Your task to perform on an android device: change notification settings in the gmail app Image 0: 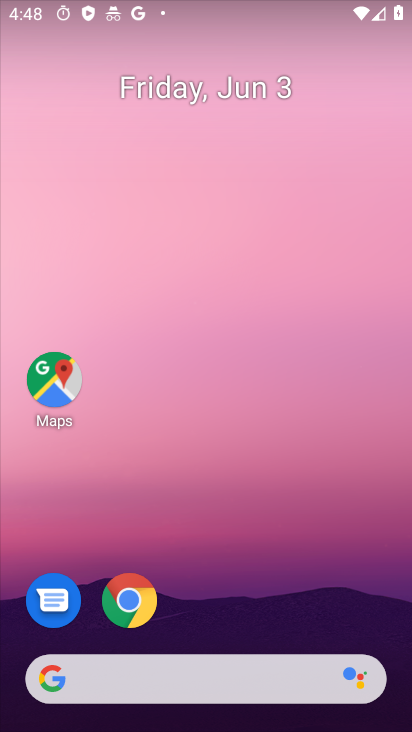
Step 0: drag from (391, 590) to (282, 60)
Your task to perform on an android device: change notification settings in the gmail app Image 1: 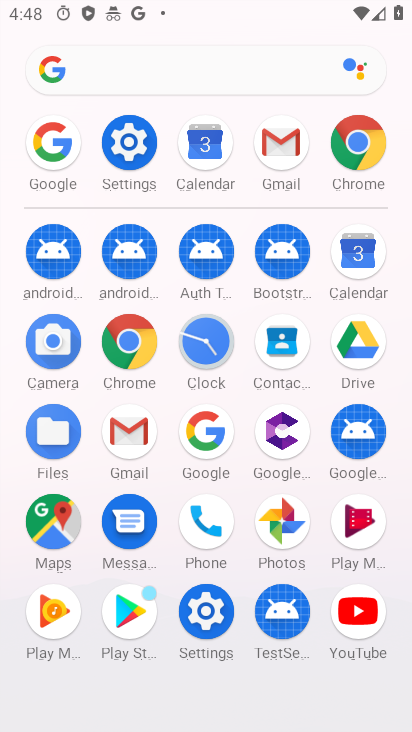
Step 1: click (125, 428)
Your task to perform on an android device: change notification settings in the gmail app Image 2: 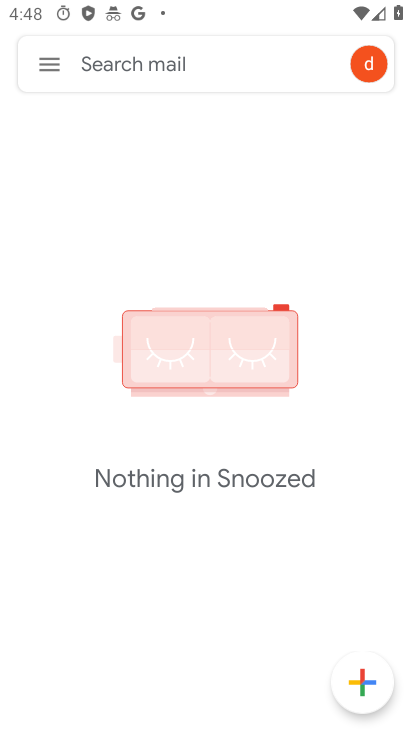
Step 2: click (37, 62)
Your task to perform on an android device: change notification settings in the gmail app Image 3: 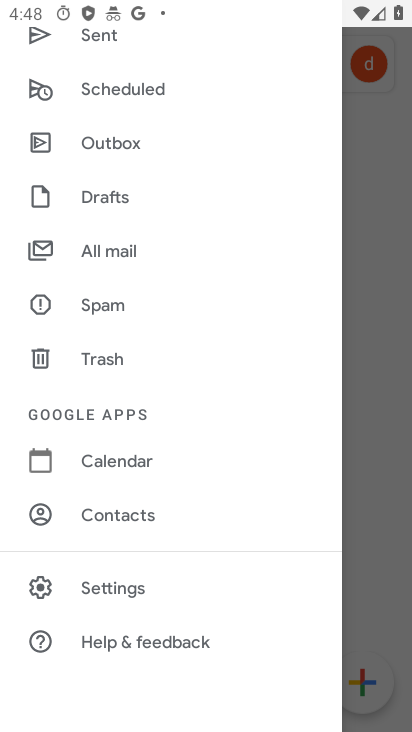
Step 3: click (116, 584)
Your task to perform on an android device: change notification settings in the gmail app Image 4: 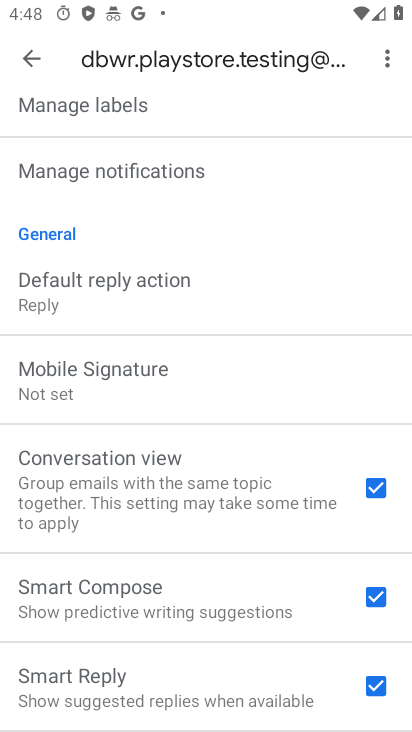
Step 4: click (68, 165)
Your task to perform on an android device: change notification settings in the gmail app Image 5: 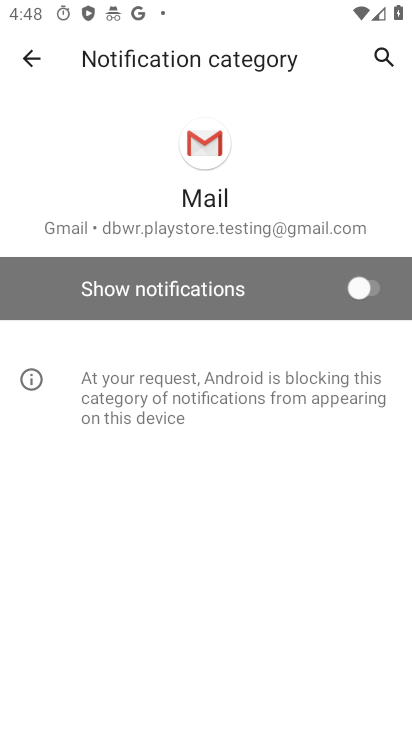
Step 5: click (26, 58)
Your task to perform on an android device: change notification settings in the gmail app Image 6: 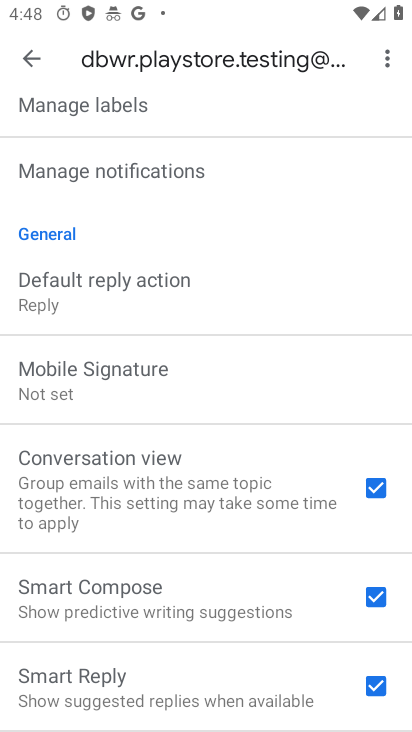
Step 6: click (101, 171)
Your task to perform on an android device: change notification settings in the gmail app Image 7: 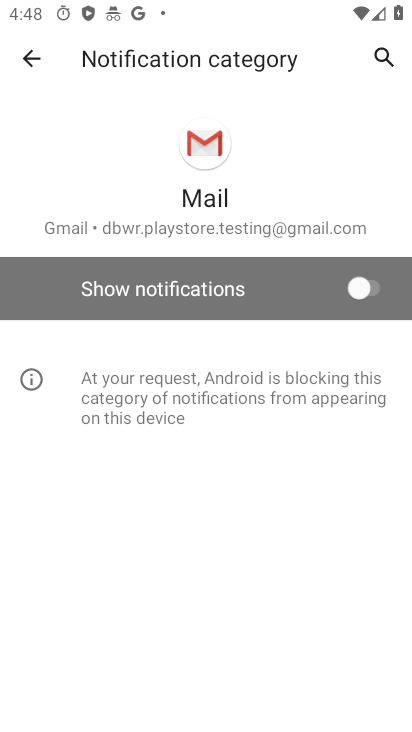
Step 7: click (384, 286)
Your task to perform on an android device: change notification settings in the gmail app Image 8: 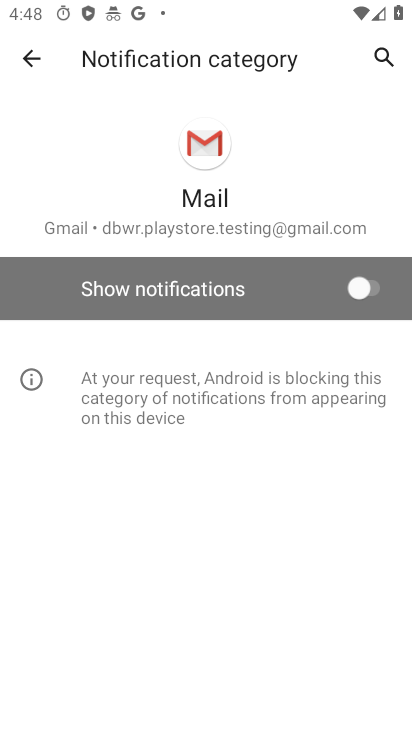
Step 8: click (375, 283)
Your task to perform on an android device: change notification settings in the gmail app Image 9: 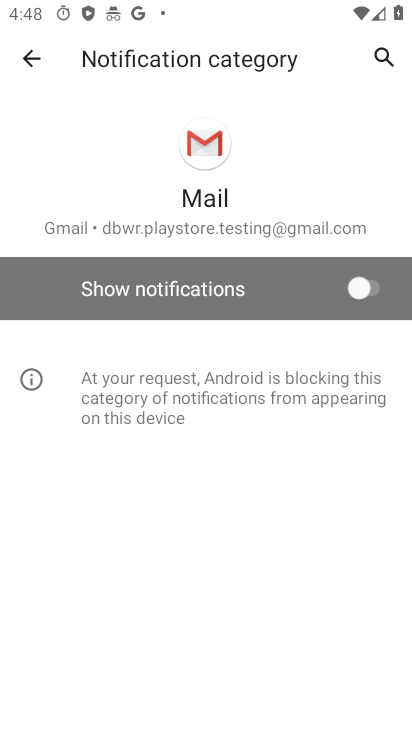
Step 9: click (376, 285)
Your task to perform on an android device: change notification settings in the gmail app Image 10: 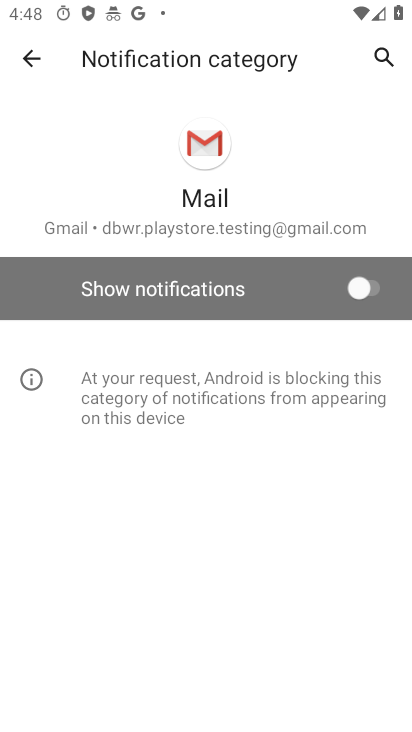
Step 10: click (368, 285)
Your task to perform on an android device: change notification settings in the gmail app Image 11: 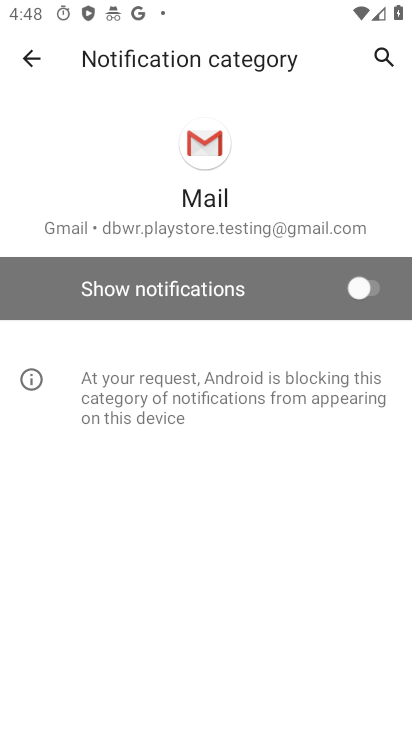
Step 11: click (30, 58)
Your task to perform on an android device: change notification settings in the gmail app Image 12: 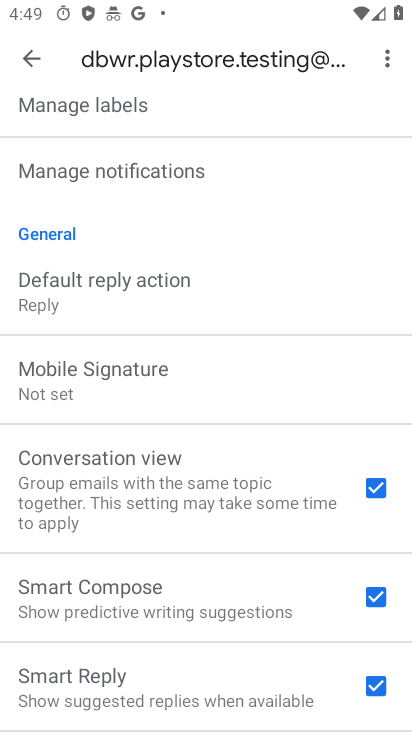
Step 12: click (30, 58)
Your task to perform on an android device: change notification settings in the gmail app Image 13: 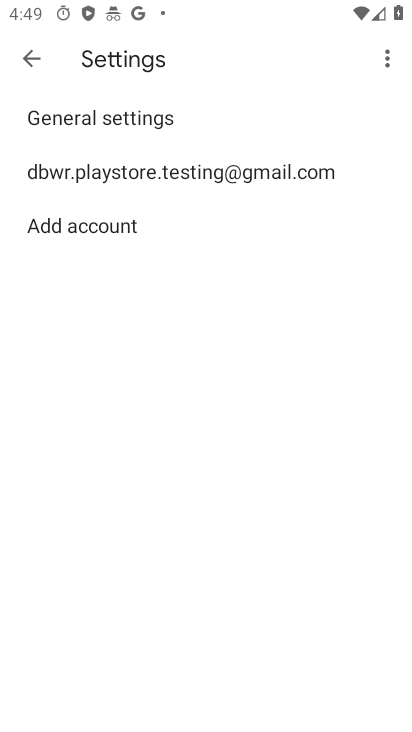
Step 13: click (98, 118)
Your task to perform on an android device: change notification settings in the gmail app Image 14: 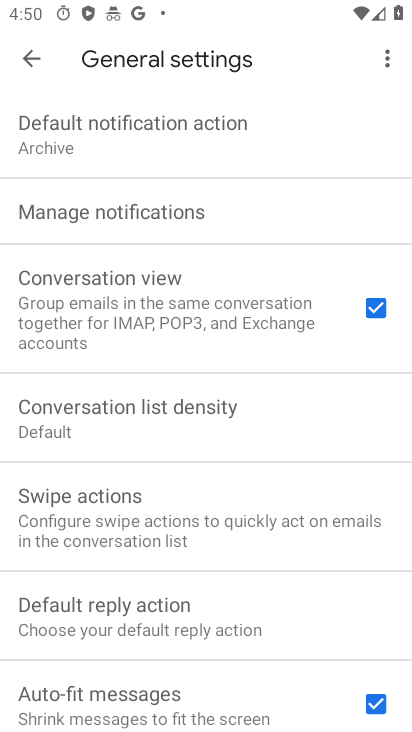
Step 14: click (84, 208)
Your task to perform on an android device: change notification settings in the gmail app Image 15: 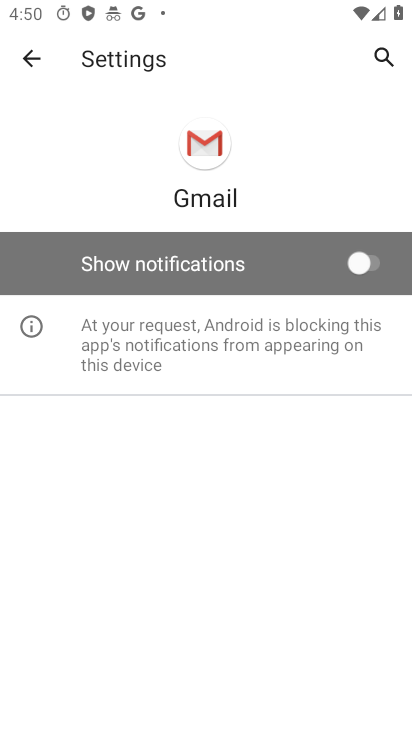
Step 15: click (386, 263)
Your task to perform on an android device: change notification settings in the gmail app Image 16: 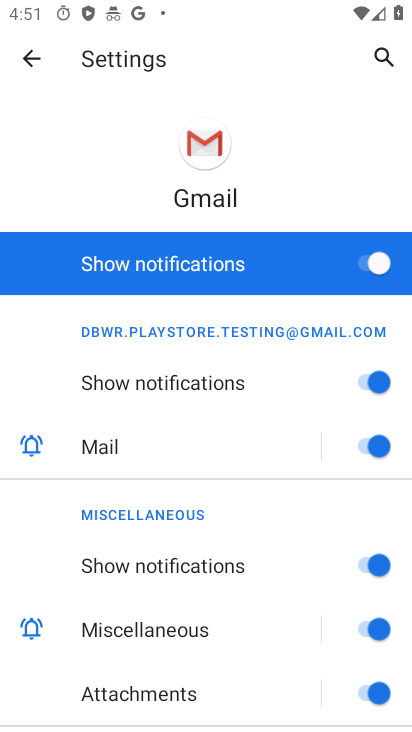
Step 16: task complete